Your task to perform on an android device: check google app version Image 0: 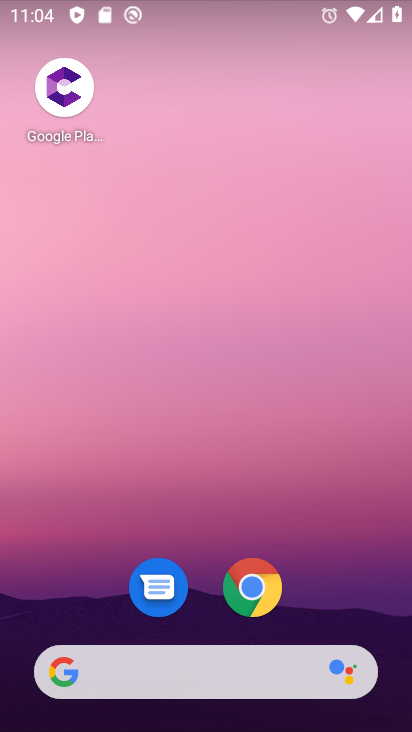
Step 0: drag from (347, 611) to (310, 31)
Your task to perform on an android device: check google app version Image 1: 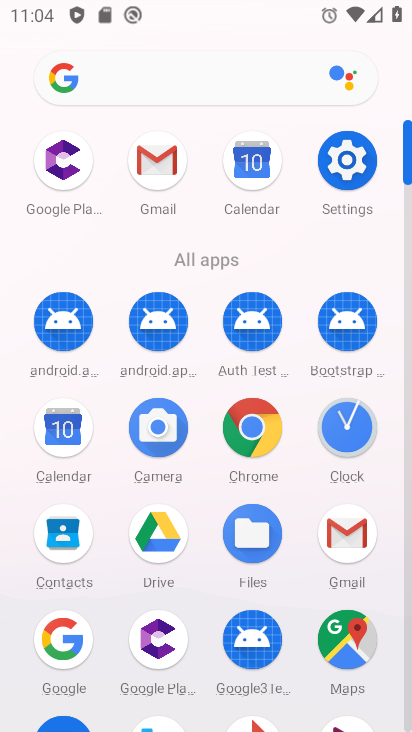
Step 1: click (55, 645)
Your task to perform on an android device: check google app version Image 2: 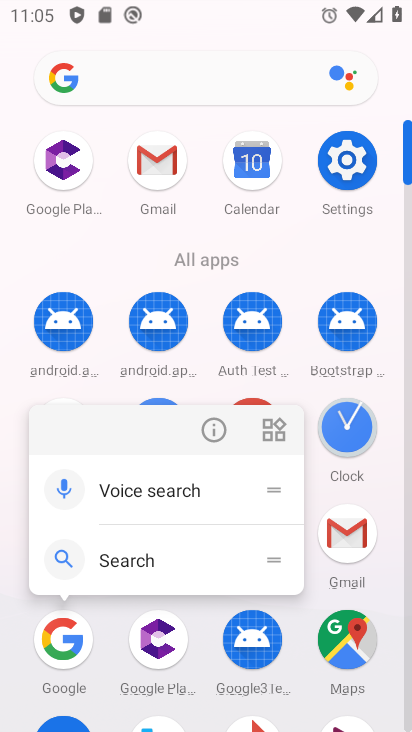
Step 2: click (220, 431)
Your task to perform on an android device: check google app version Image 3: 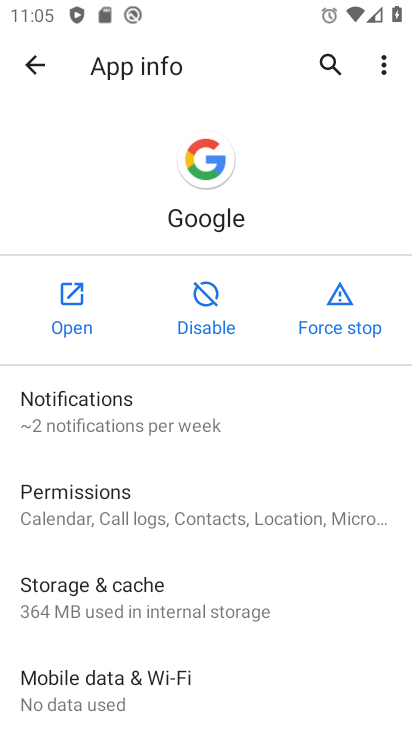
Step 3: drag from (230, 642) to (223, 193)
Your task to perform on an android device: check google app version Image 4: 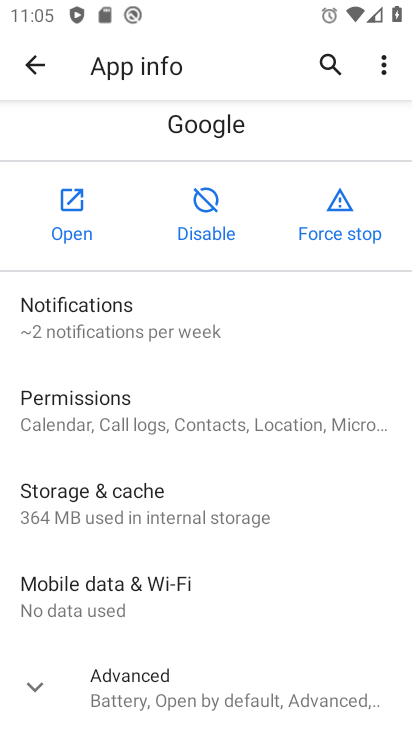
Step 4: click (28, 691)
Your task to perform on an android device: check google app version Image 5: 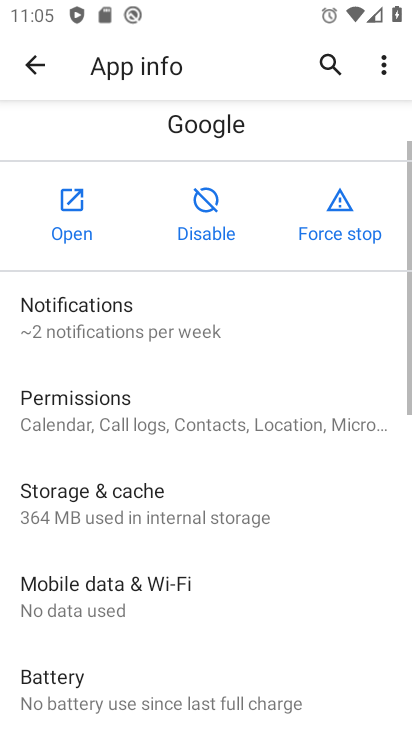
Step 5: task complete